Your task to perform on an android device: change the clock display to show seconds Image 0: 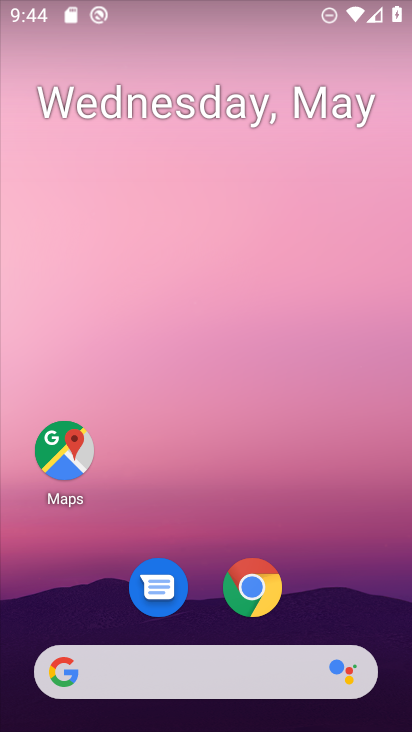
Step 0: drag from (209, 718) to (210, 148)
Your task to perform on an android device: change the clock display to show seconds Image 1: 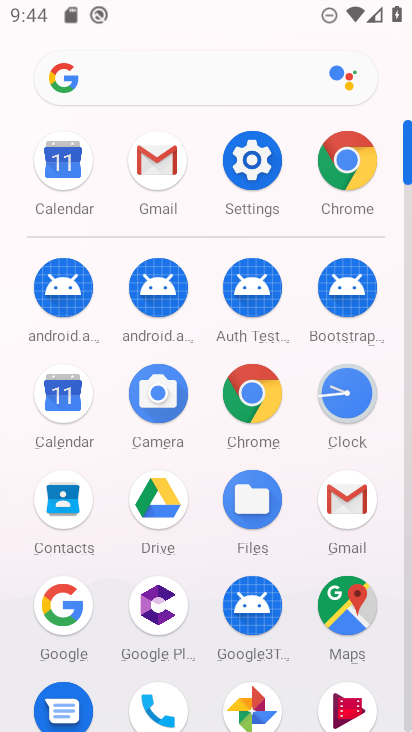
Step 1: click (339, 392)
Your task to perform on an android device: change the clock display to show seconds Image 2: 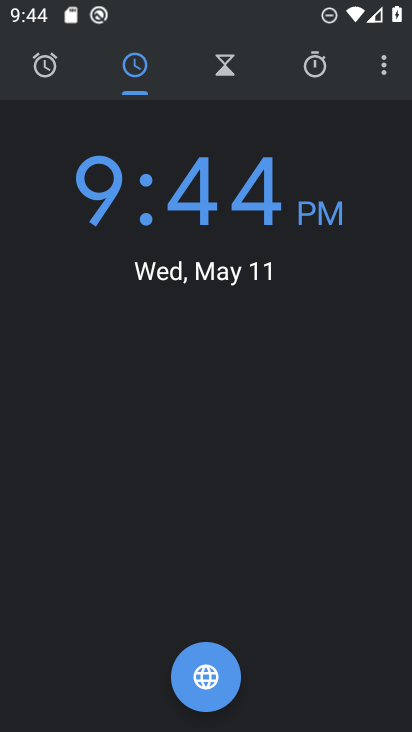
Step 2: click (383, 68)
Your task to perform on an android device: change the clock display to show seconds Image 3: 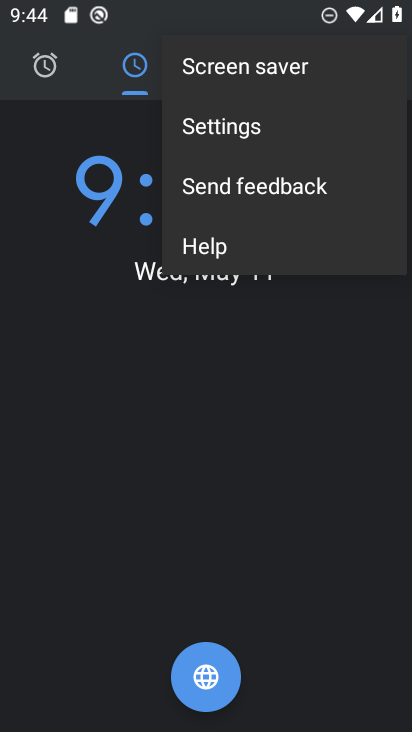
Step 3: click (229, 123)
Your task to perform on an android device: change the clock display to show seconds Image 4: 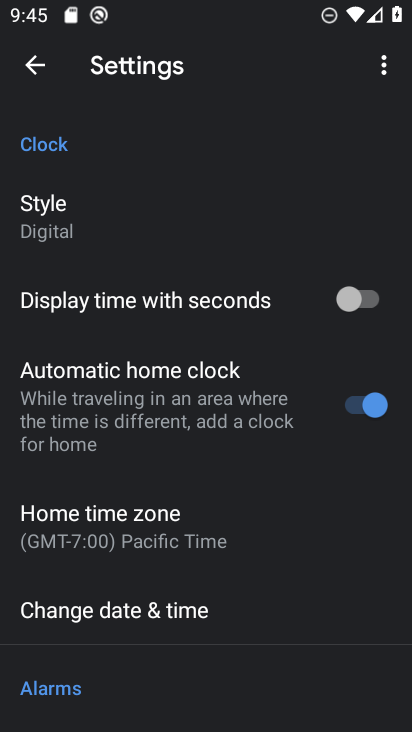
Step 4: click (361, 296)
Your task to perform on an android device: change the clock display to show seconds Image 5: 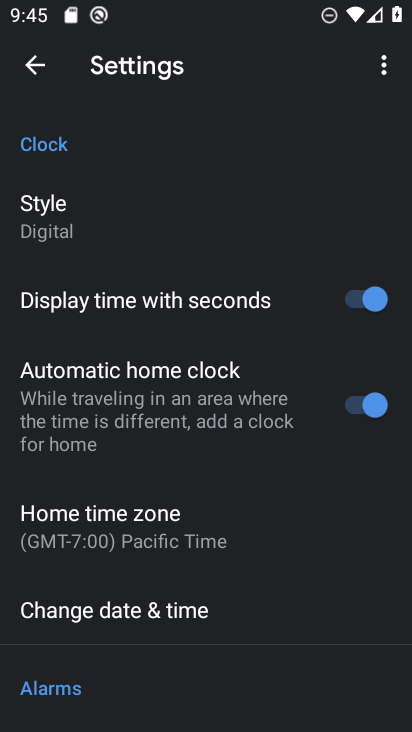
Step 5: task complete